Your task to perform on an android device: open wifi settings Image 0: 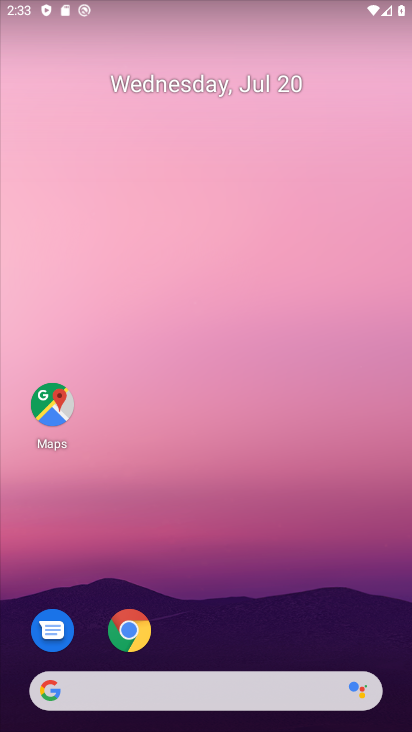
Step 0: drag from (226, 671) to (259, 119)
Your task to perform on an android device: open wifi settings Image 1: 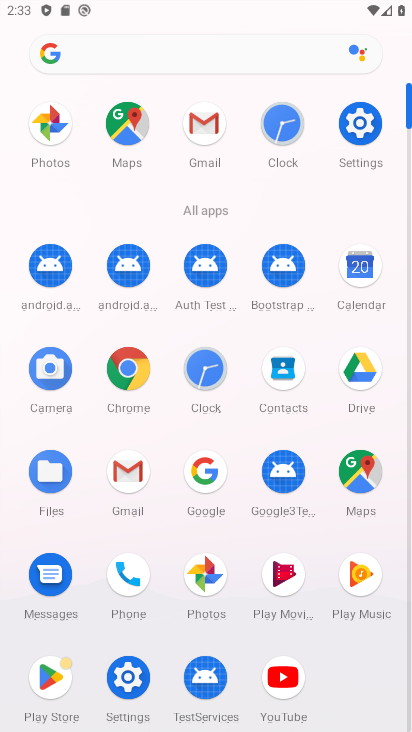
Step 1: click (132, 677)
Your task to perform on an android device: open wifi settings Image 2: 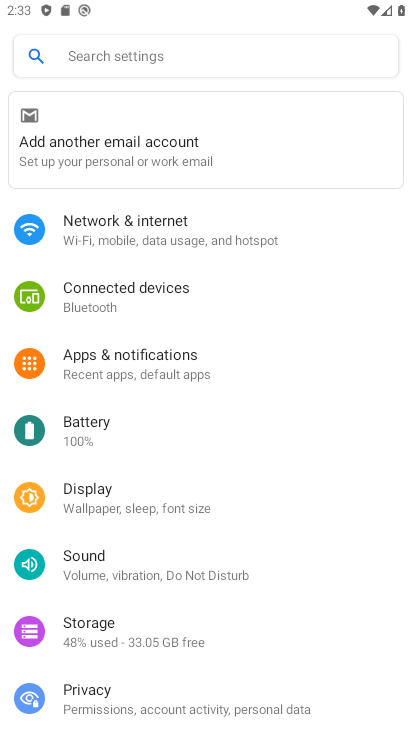
Step 2: click (167, 226)
Your task to perform on an android device: open wifi settings Image 3: 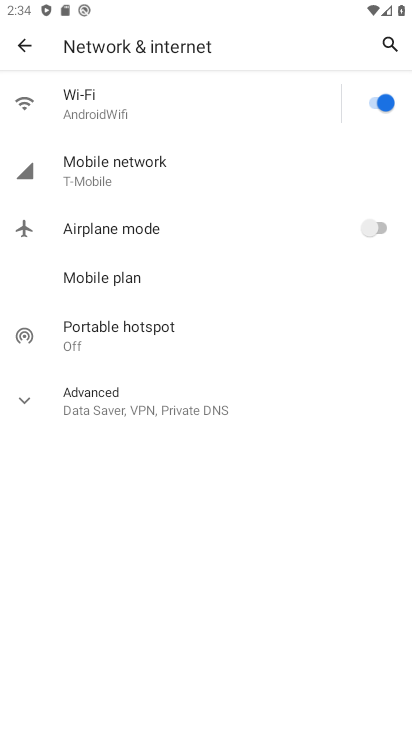
Step 3: click (166, 108)
Your task to perform on an android device: open wifi settings Image 4: 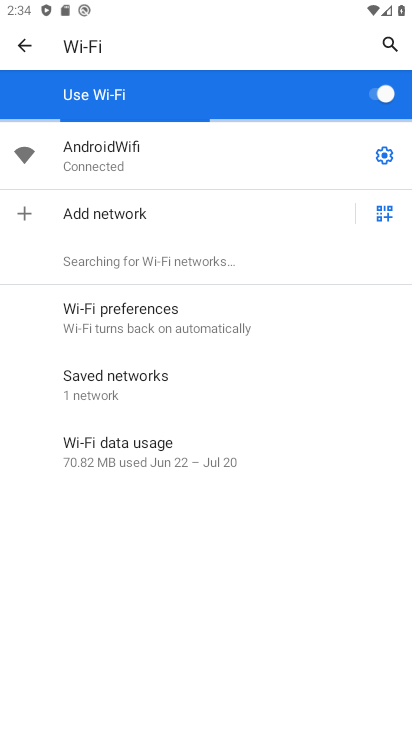
Step 4: task complete